Your task to perform on an android device: Play the last video I watched on Youtube Image 0: 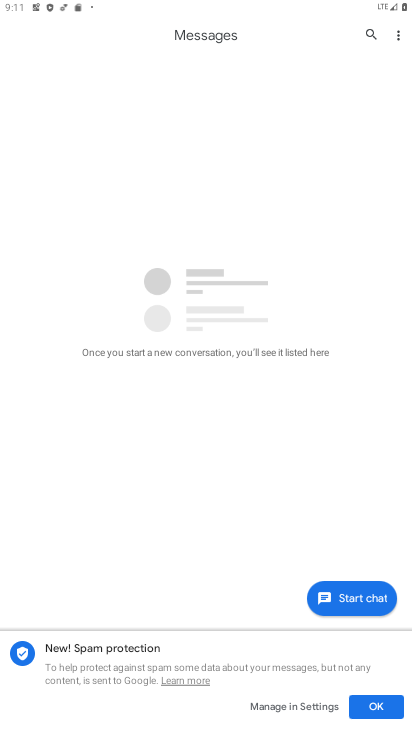
Step 0: press home button
Your task to perform on an android device: Play the last video I watched on Youtube Image 1: 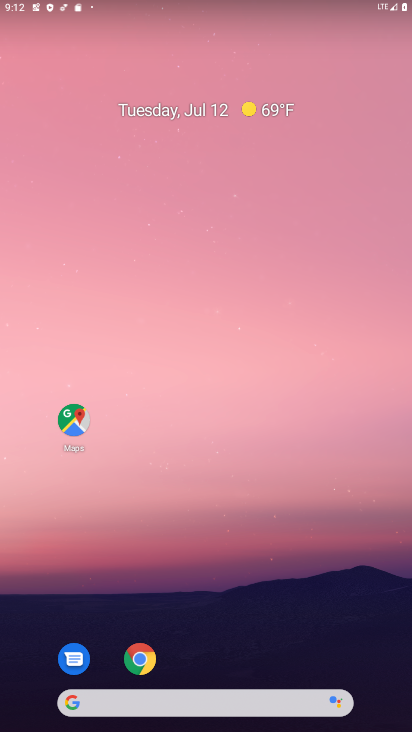
Step 1: drag from (244, 700) to (244, 84)
Your task to perform on an android device: Play the last video I watched on Youtube Image 2: 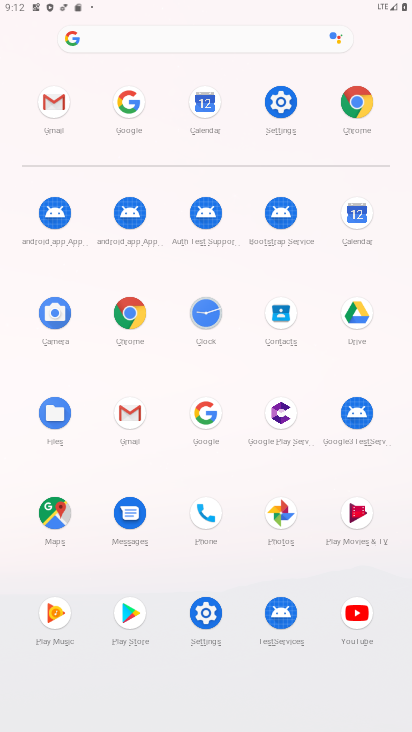
Step 2: click (357, 605)
Your task to perform on an android device: Play the last video I watched on Youtube Image 3: 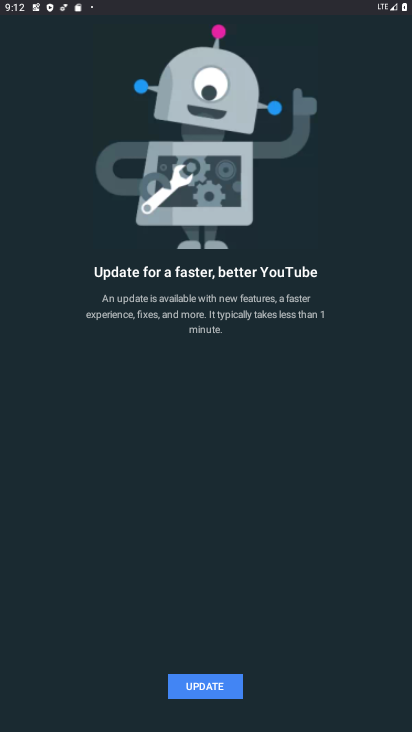
Step 3: task complete